Your task to perform on an android device: toggle pop-ups in chrome Image 0: 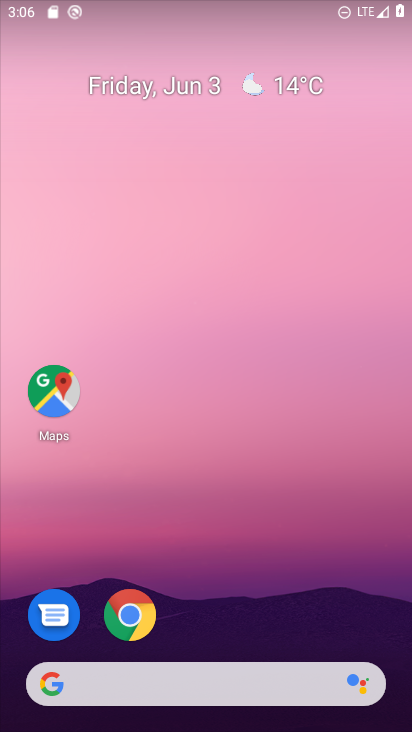
Step 0: drag from (202, 585) to (185, 241)
Your task to perform on an android device: toggle pop-ups in chrome Image 1: 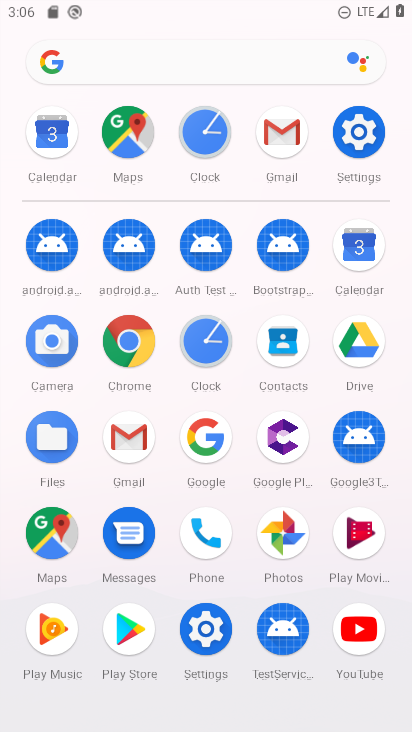
Step 1: click (122, 347)
Your task to perform on an android device: toggle pop-ups in chrome Image 2: 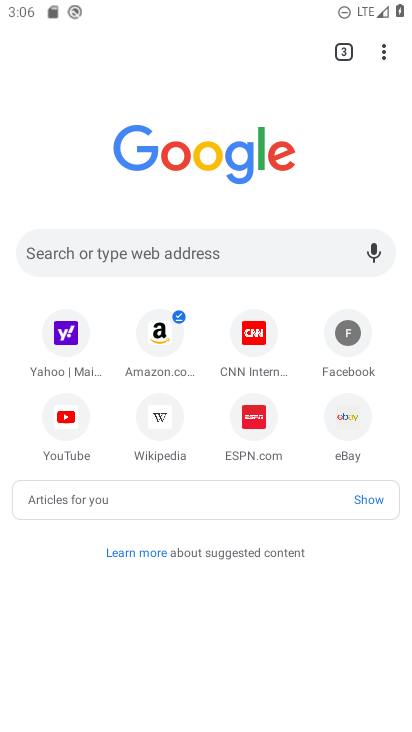
Step 2: drag from (382, 50) to (250, 439)
Your task to perform on an android device: toggle pop-ups in chrome Image 3: 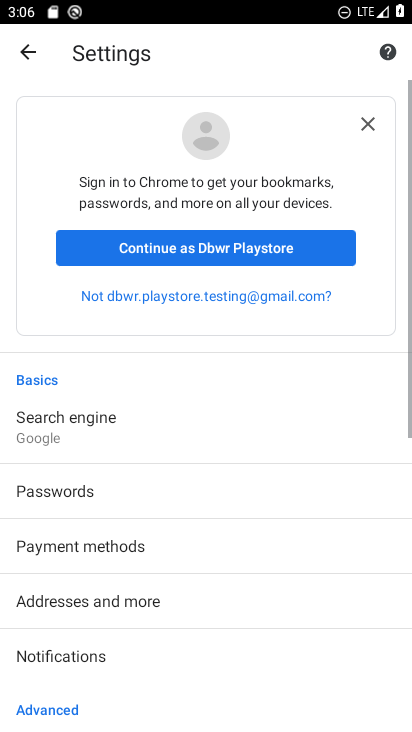
Step 3: drag from (222, 449) to (224, 186)
Your task to perform on an android device: toggle pop-ups in chrome Image 4: 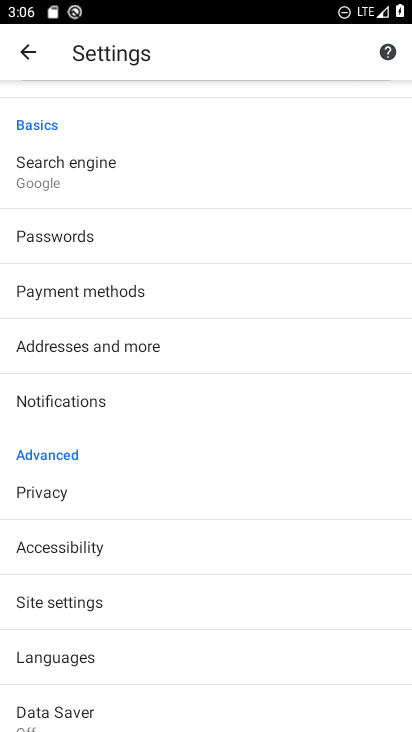
Step 4: click (119, 590)
Your task to perform on an android device: toggle pop-ups in chrome Image 5: 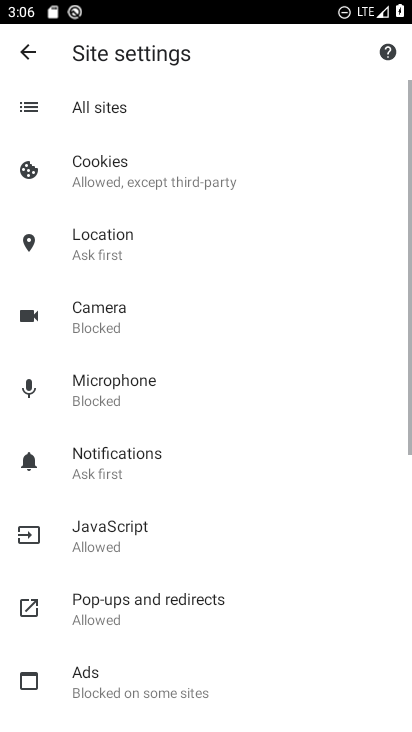
Step 5: drag from (133, 569) to (172, 201)
Your task to perform on an android device: toggle pop-ups in chrome Image 6: 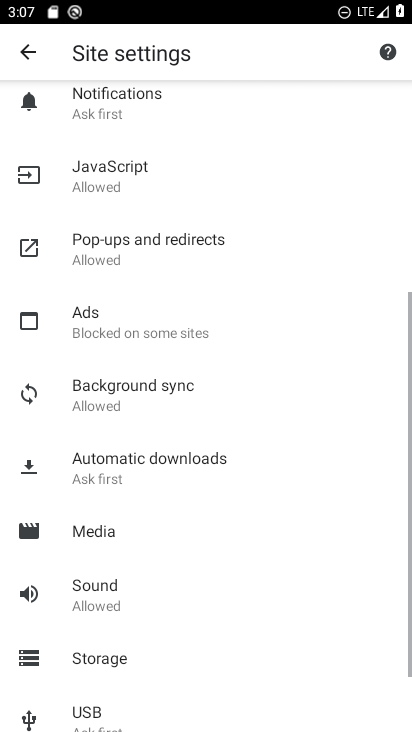
Step 6: click (145, 267)
Your task to perform on an android device: toggle pop-ups in chrome Image 7: 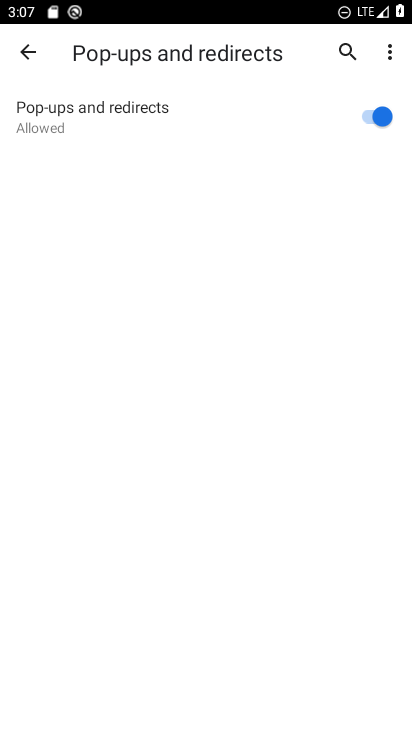
Step 7: drag from (224, 567) to (229, 210)
Your task to perform on an android device: toggle pop-ups in chrome Image 8: 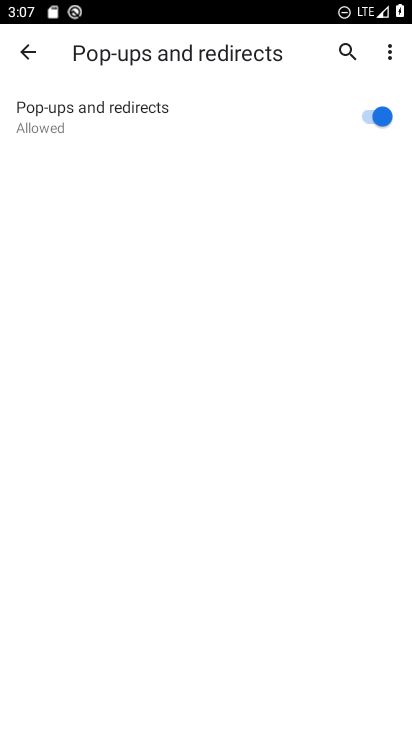
Step 8: click (358, 111)
Your task to perform on an android device: toggle pop-ups in chrome Image 9: 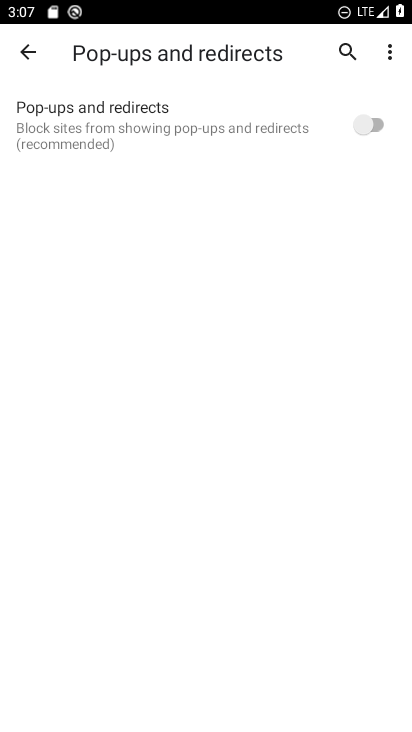
Step 9: task complete